Your task to perform on an android device: What's the weather? Image 0: 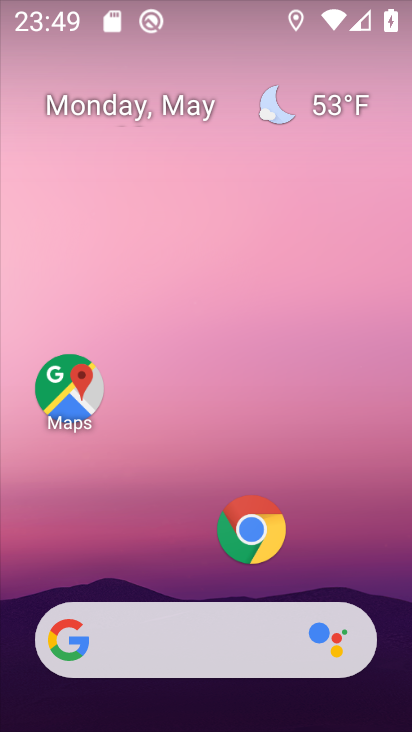
Step 0: click (309, 108)
Your task to perform on an android device: What's the weather? Image 1: 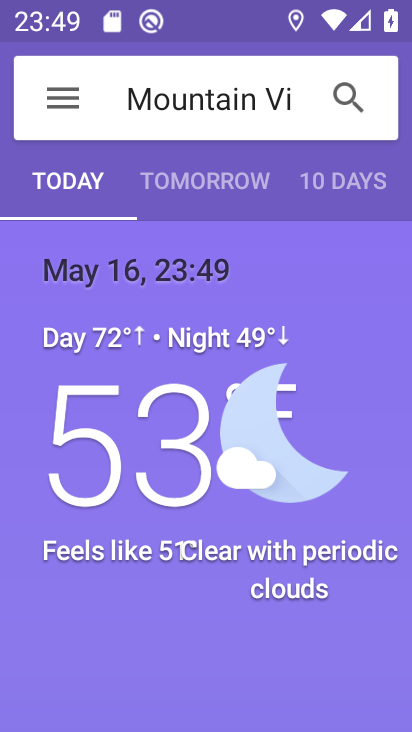
Step 1: task complete